Your task to perform on an android device: Search for vegetarian restaurants on Maps Image 0: 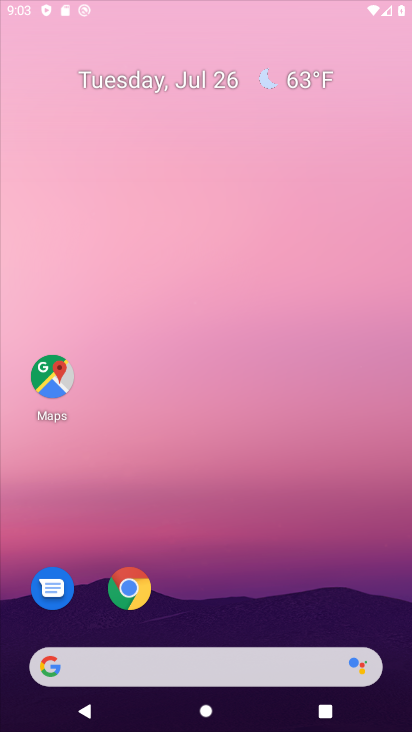
Step 0: click (130, 595)
Your task to perform on an android device: Search for vegetarian restaurants on Maps Image 1: 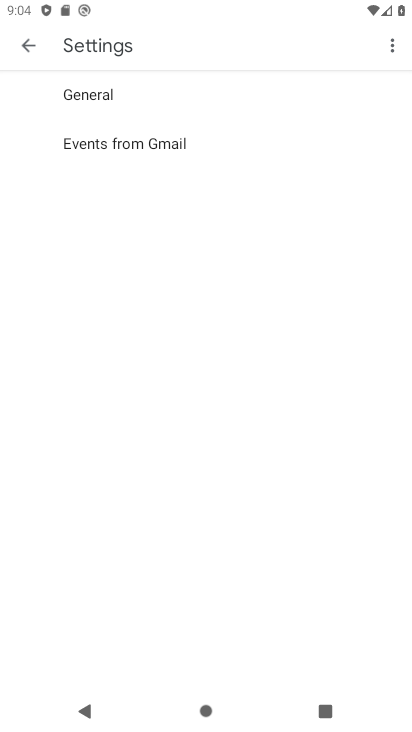
Step 1: click (25, 47)
Your task to perform on an android device: Search for vegetarian restaurants on Maps Image 2: 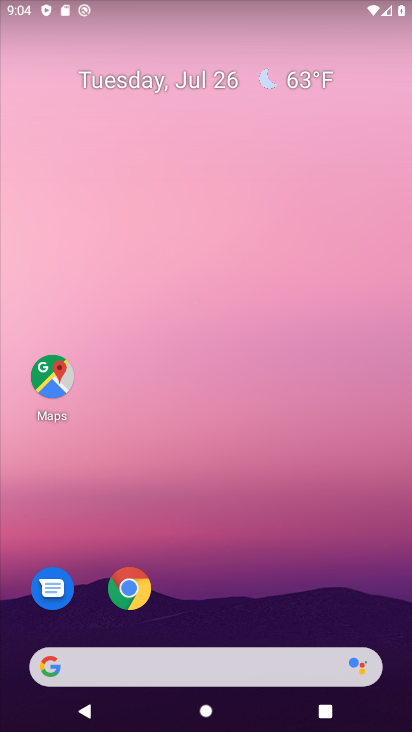
Step 2: click (48, 397)
Your task to perform on an android device: Search for vegetarian restaurants on Maps Image 3: 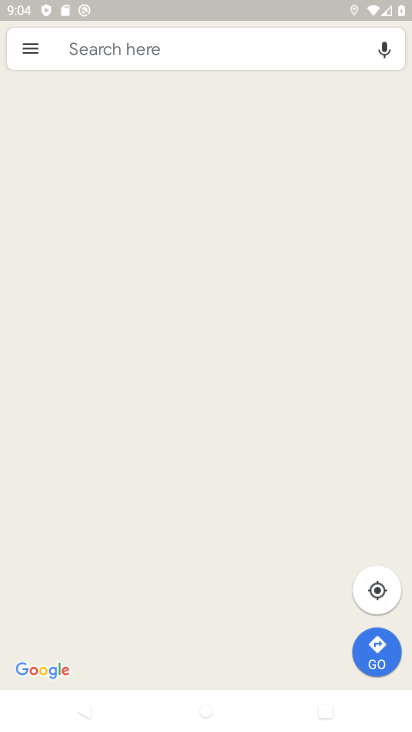
Step 3: click (138, 51)
Your task to perform on an android device: Search for vegetarian restaurants on Maps Image 4: 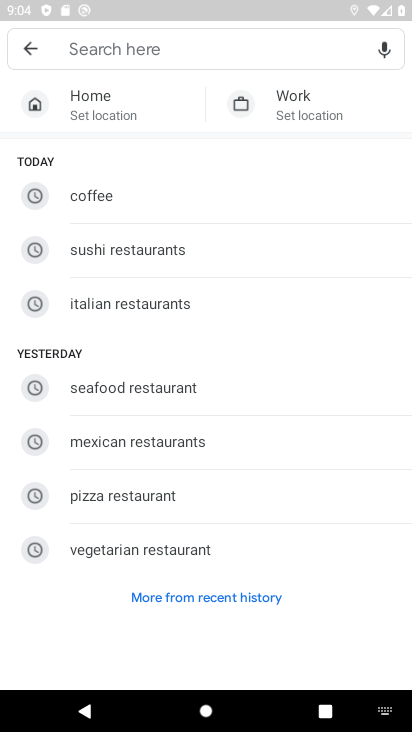
Step 4: type "veget"
Your task to perform on an android device: Search for vegetarian restaurants on Maps Image 5: 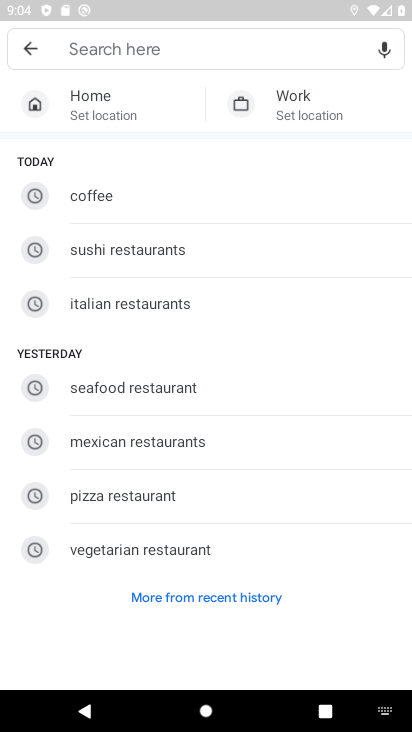
Step 5: click (233, 547)
Your task to perform on an android device: Search for vegetarian restaurants on Maps Image 6: 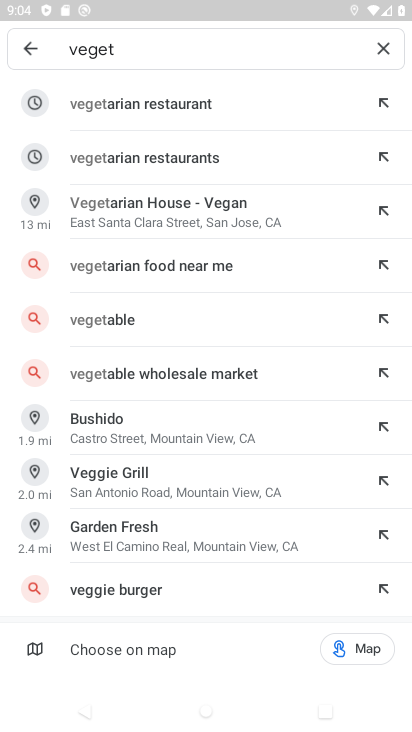
Step 6: click (200, 109)
Your task to perform on an android device: Search for vegetarian restaurants on Maps Image 7: 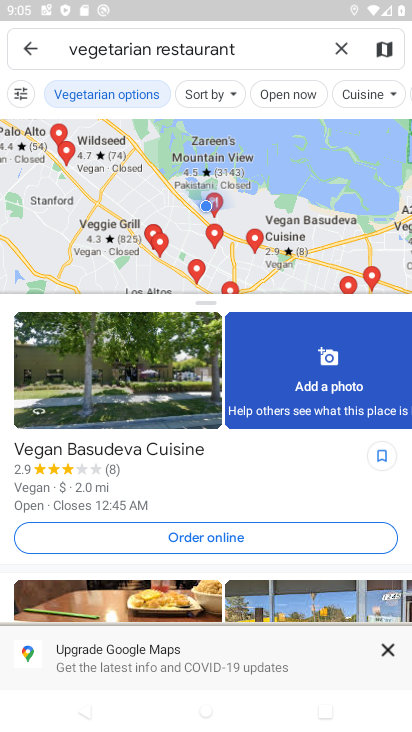
Step 7: task complete